Your task to perform on an android device: Open Chrome and go to the settings page Image 0: 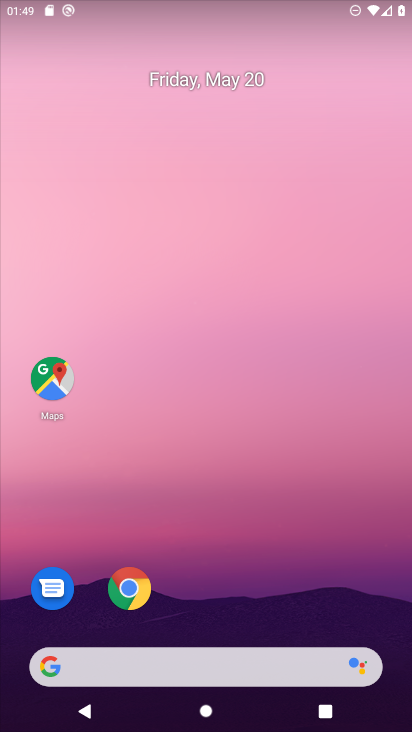
Step 0: click (128, 592)
Your task to perform on an android device: Open Chrome and go to the settings page Image 1: 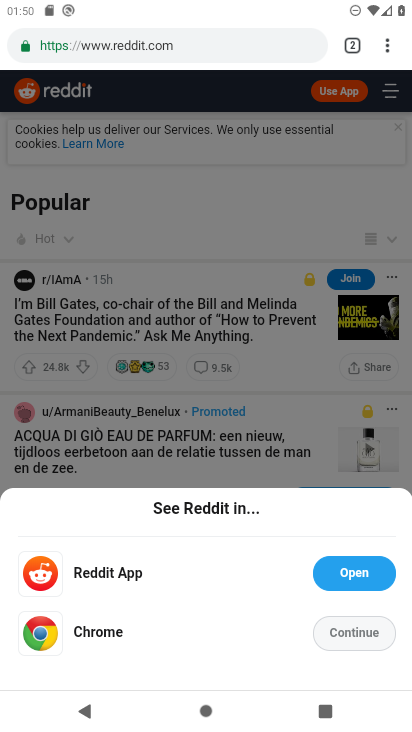
Step 1: click (387, 50)
Your task to perform on an android device: Open Chrome and go to the settings page Image 2: 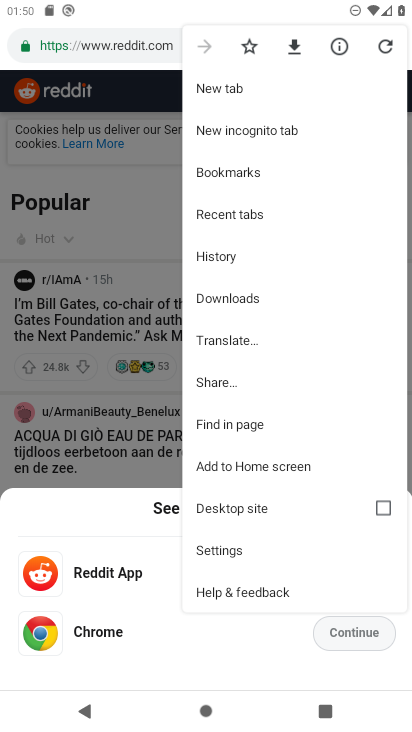
Step 2: click (217, 551)
Your task to perform on an android device: Open Chrome and go to the settings page Image 3: 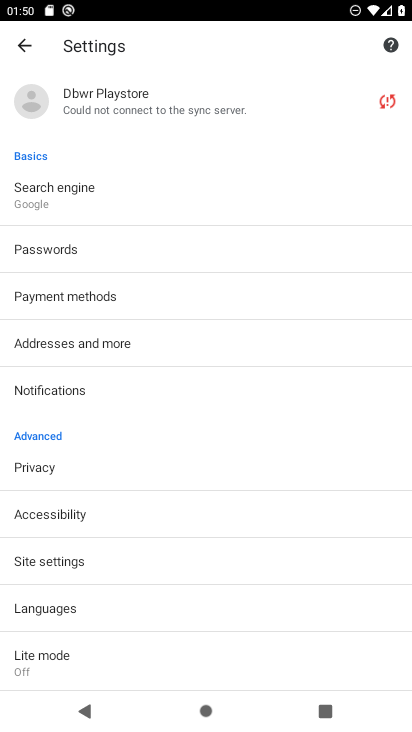
Step 3: task complete